Your task to perform on an android device: open app "Messages" (install if not already installed), go to login, and select forgot password Image 0: 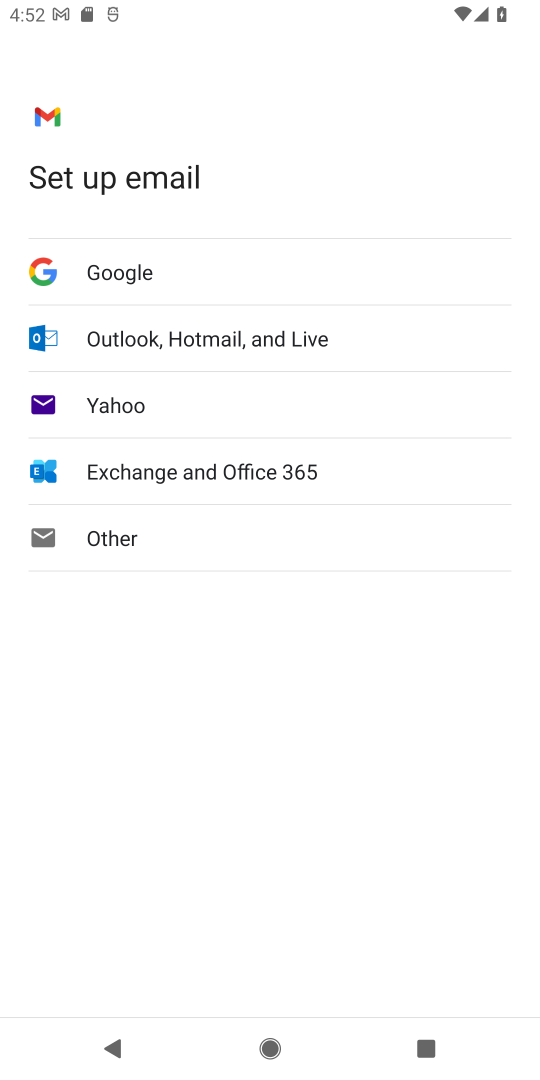
Step 0: press home button
Your task to perform on an android device: open app "Messages" (install if not already installed), go to login, and select forgot password Image 1: 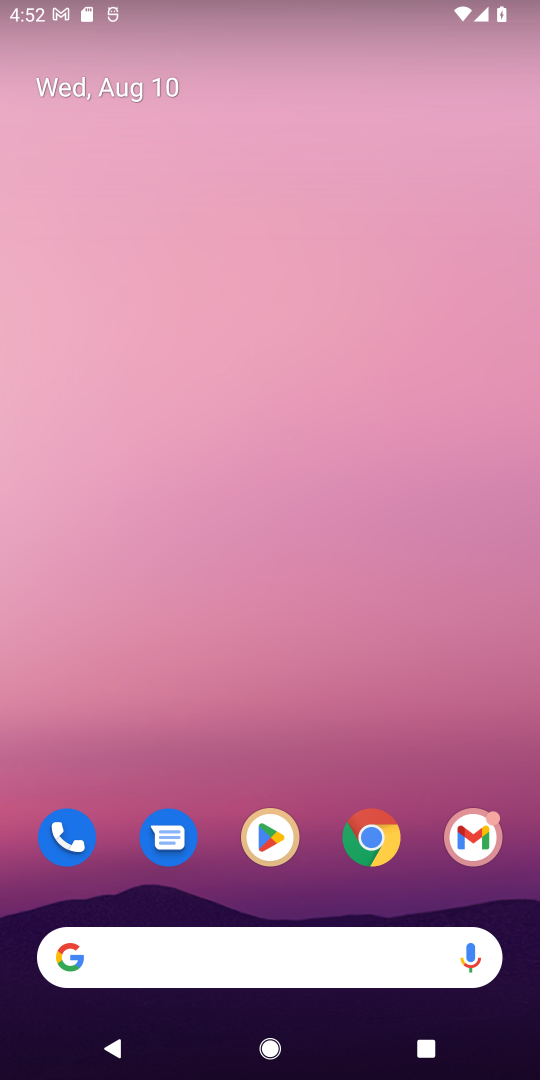
Step 1: click (266, 828)
Your task to perform on an android device: open app "Messages" (install if not already installed), go to login, and select forgot password Image 2: 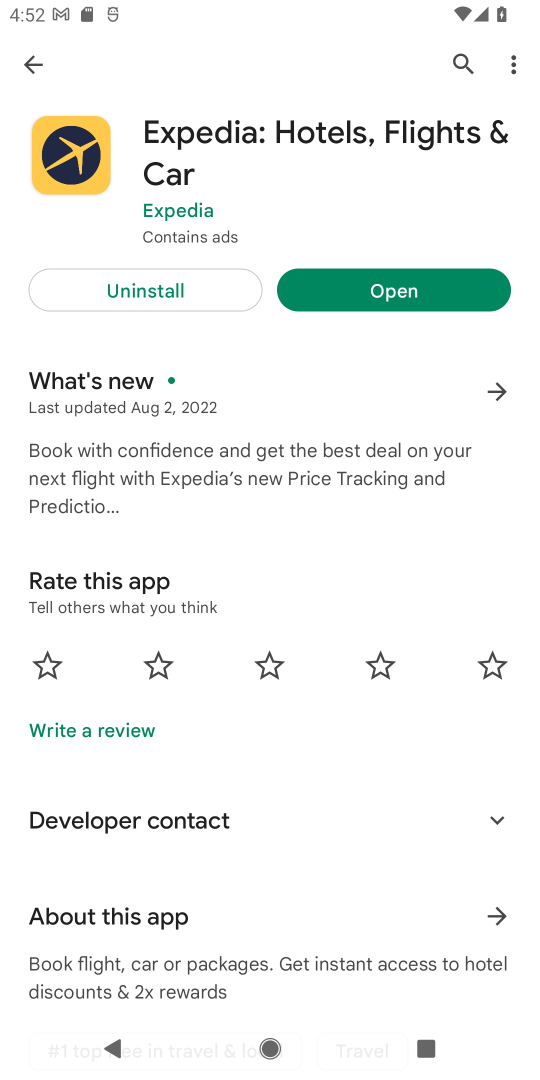
Step 2: click (459, 44)
Your task to perform on an android device: open app "Messages" (install if not already installed), go to login, and select forgot password Image 3: 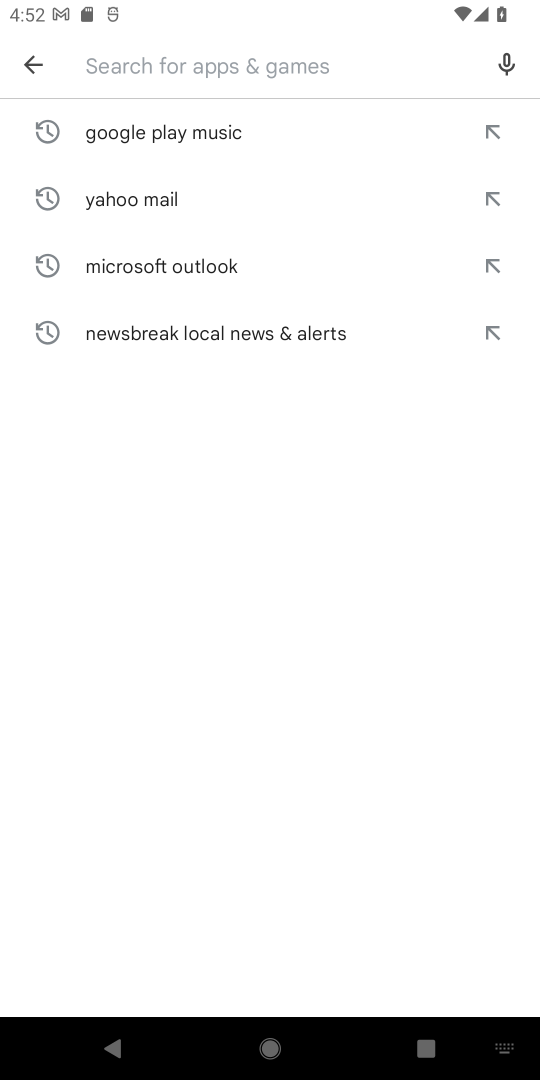
Step 3: type "Messages"
Your task to perform on an android device: open app "Messages" (install if not already installed), go to login, and select forgot password Image 4: 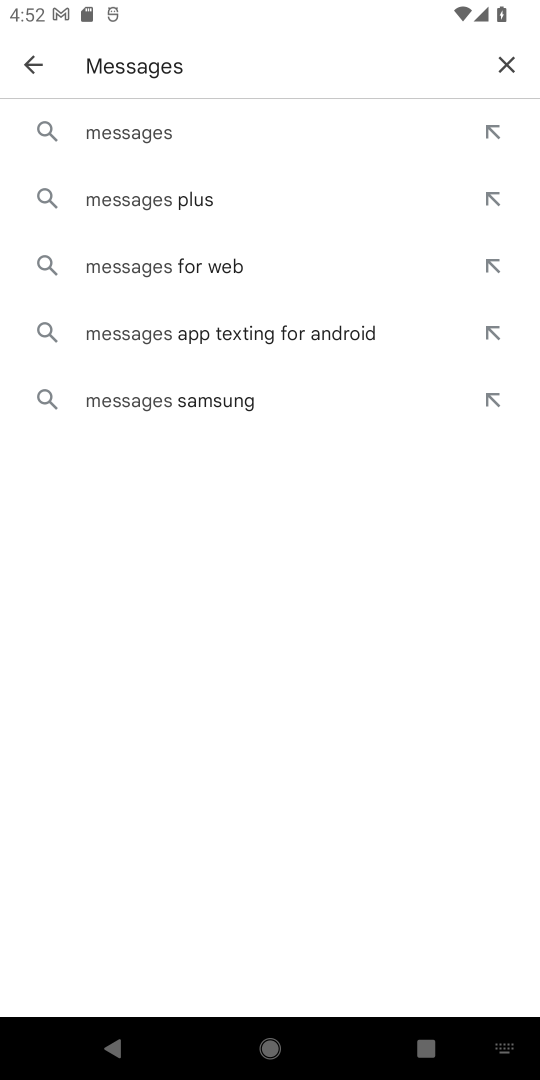
Step 4: click (130, 125)
Your task to perform on an android device: open app "Messages" (install if not already installed), go to login, and select forgot password Image 5: 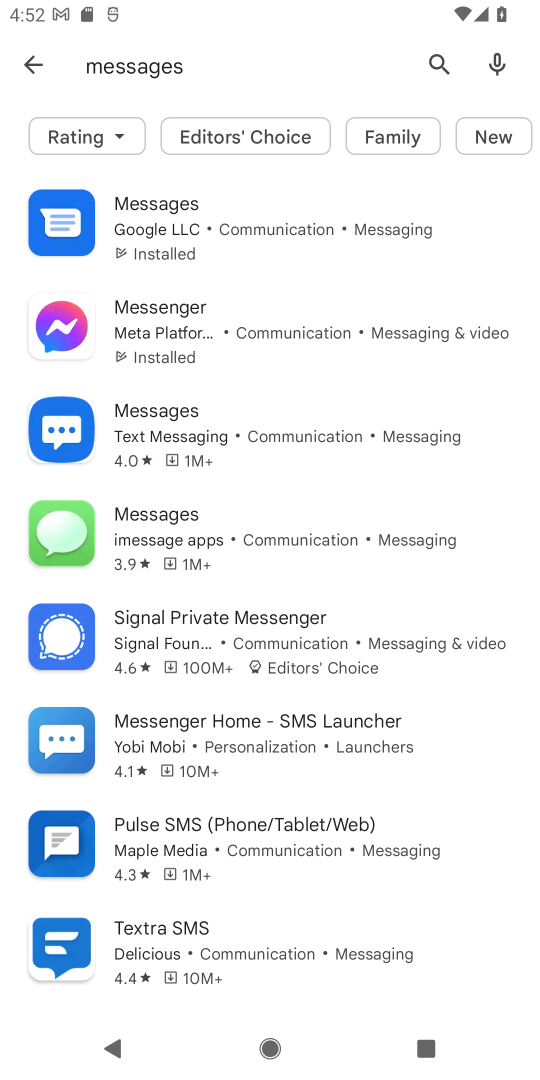
Step 5: click (176, 226)
Your task to perform on an android device: open app "Messages" (install if not already installed), go to login, and select forgot password Image 6: 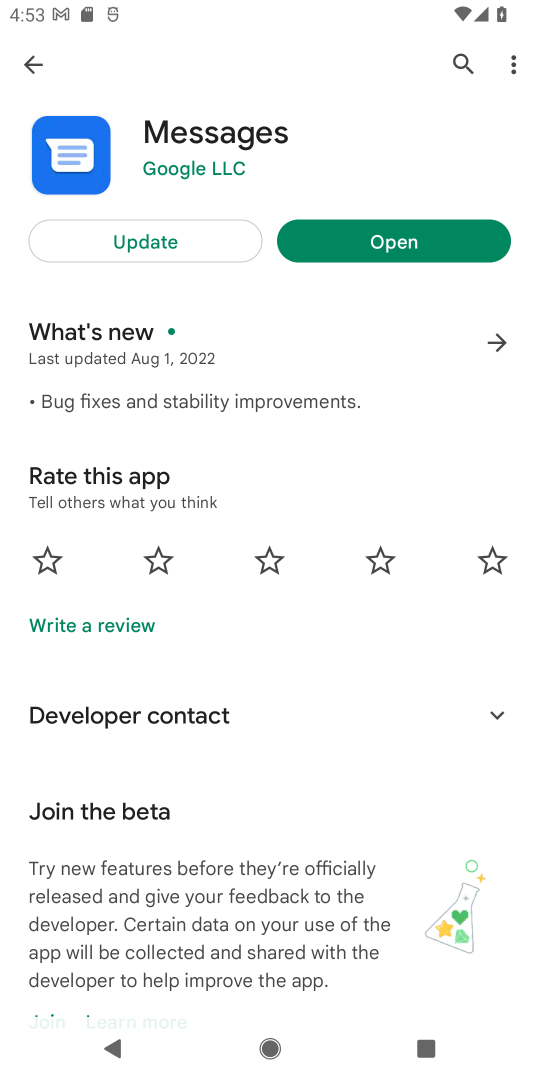
Step 6: click (385, 239)
Your task to perform on an android device: open app "Messages" (install if not already installed), go to login, and select forgot password Image 7: 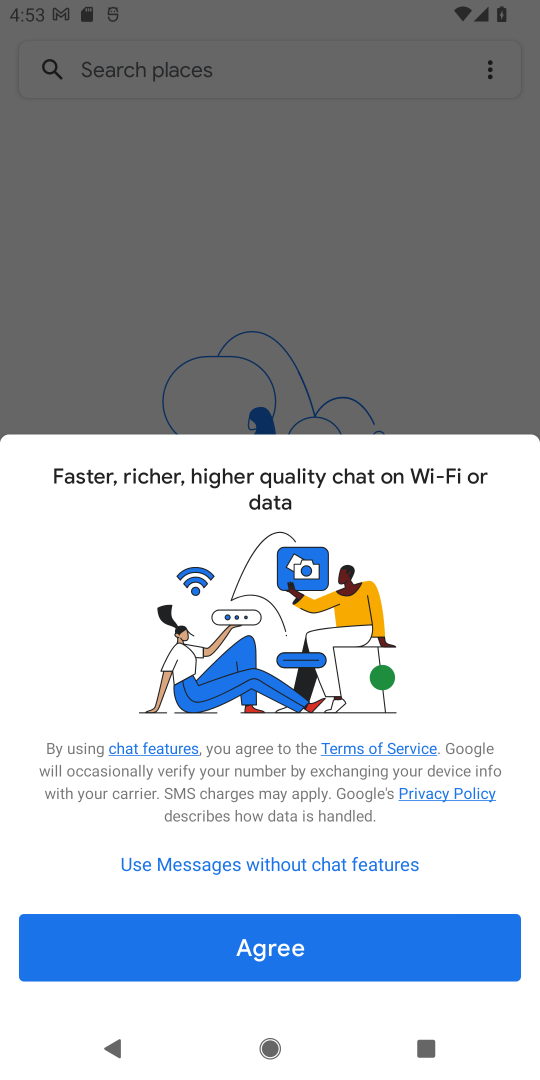
Step 7: click (310, 948)
Your task to perform on an android device: open app "Messages" (install if not already installed), go to login, and select forgot password Image 8: 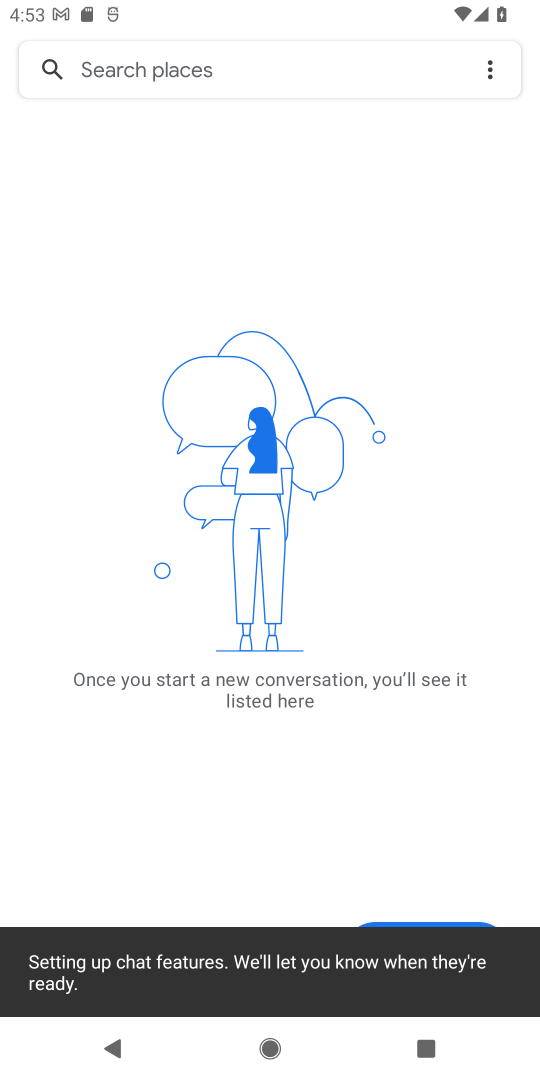
Step 8: task complete